Your task to perform on an android device: Open Android settings Image 0: 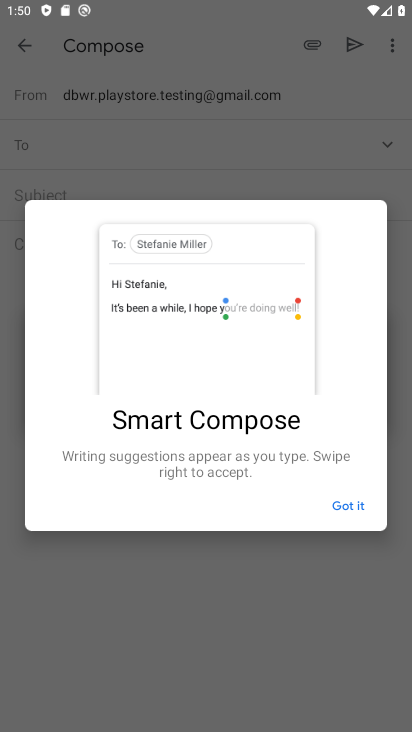
Step 0: press home button
Your task to perform on an android device: Open Android settings Image 1: 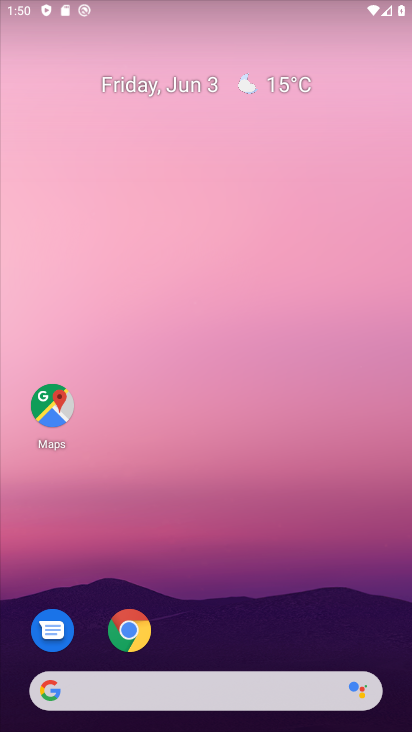
Step 1: drag from (342, 641) to (257, 11)
Your task to perform on an android device: Open Android settings Image 2: 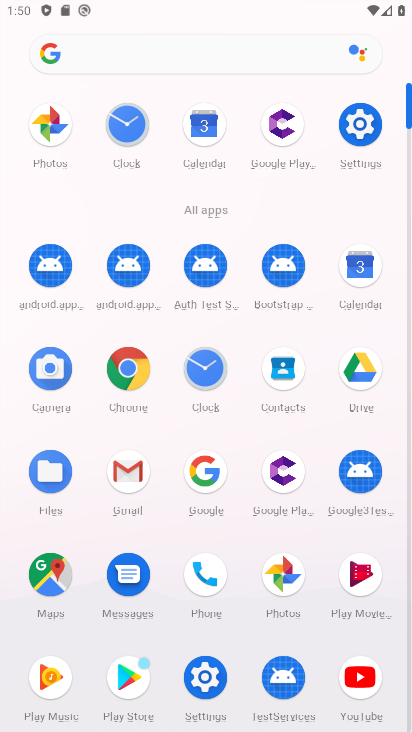
Step 2: click (360, 128)
Your task to perform on an android device: Open Android settings Image 3: 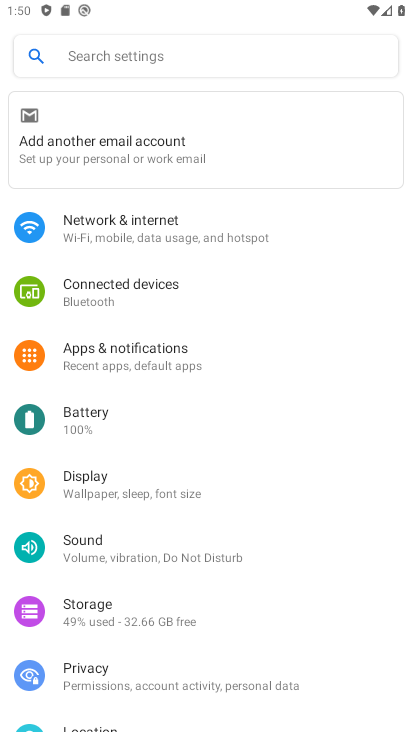
Step 3: drag from (182, 568) to (207, 94)
Your task to perform on an android device: Open Android settings Image 4: 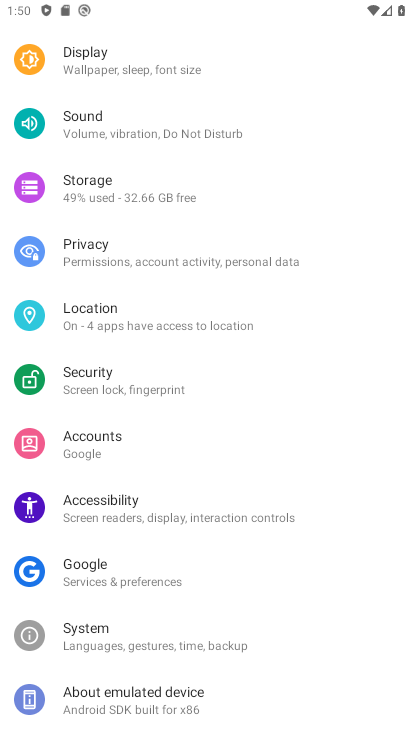
Step 4: click (142, 706)
Your task to perform on an android device: Open Android settings Image 5: 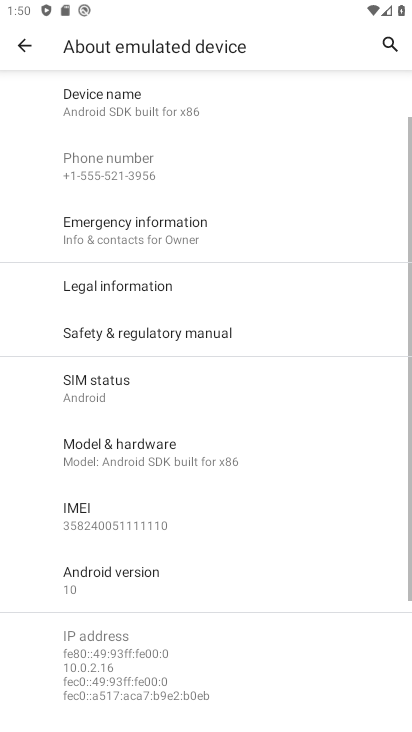
Step 5: click (158, 590)
Your task to perform on an android device: Open Android settings Image 6: 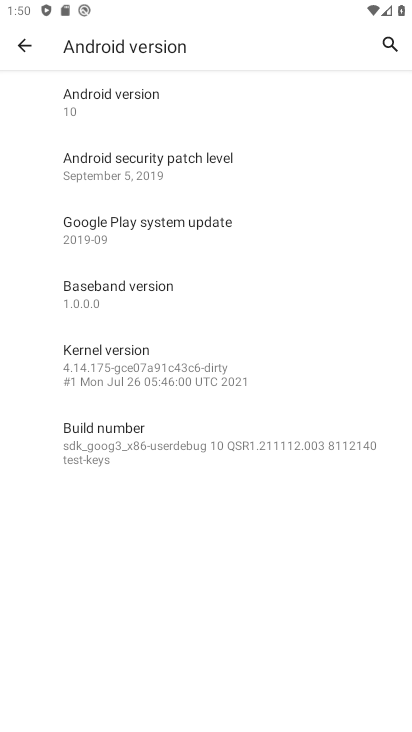
Step 6: task complete